Your task to perform on an android device: turn on translation in the chrome app Image 0: 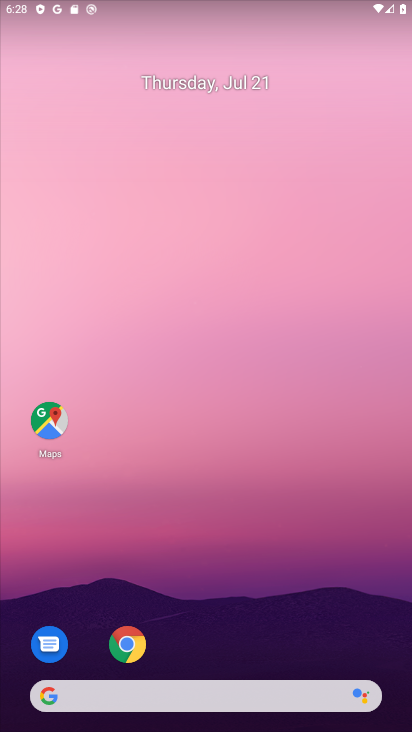
Step 0: click (115, 646)
Your task to perform on an android device: turn on translation in the chrome app Image 1: 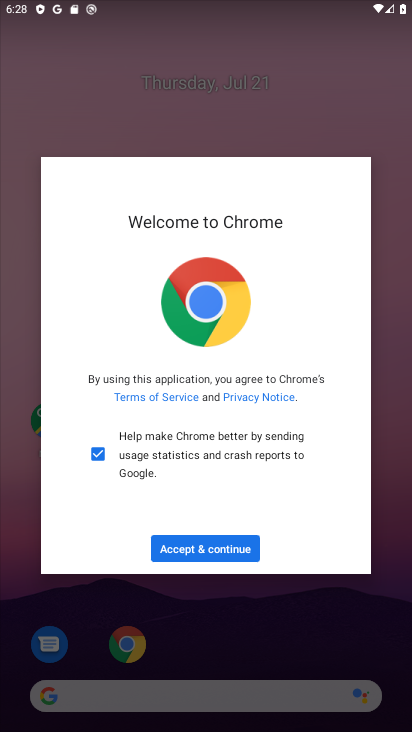
Step 1: click (200, 557)
Your task to perform on an android device: turn on translation in the chrome app Image 2: 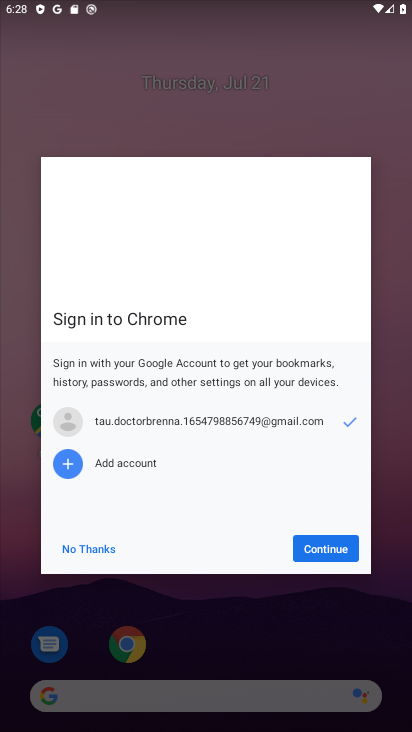
Step 2: click (308, 549)
Your task to perform on an android device: turn on translation in the chrome app Image 3: 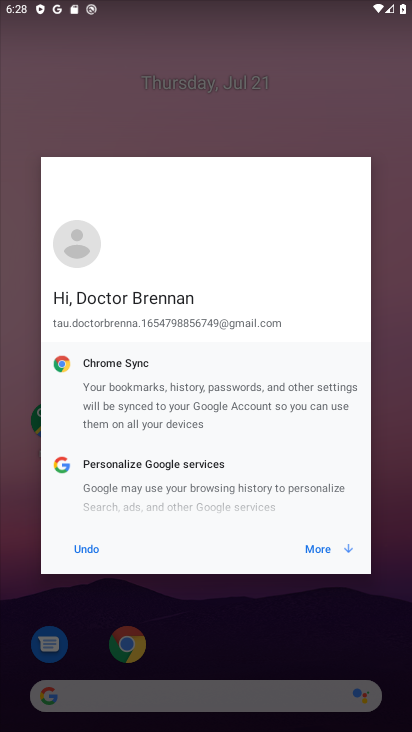
Step 3: click (322, 556)
Your task to perform on an android device: turn on translation in the chrome app Image 4: 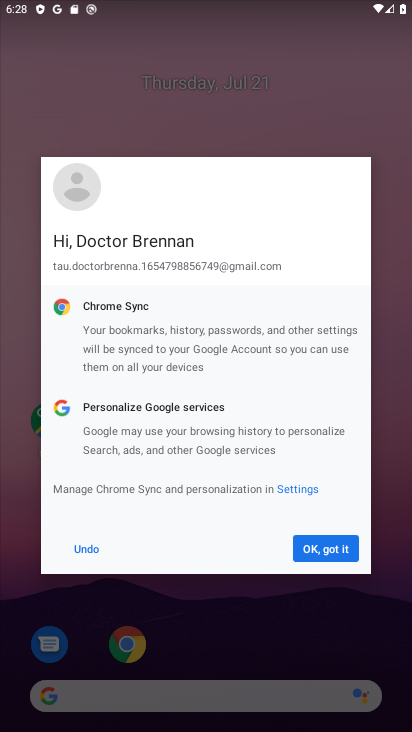
Step 4: click (323, 557)
Your task to perform on an android device: turn on translation in the chrome app Image 5: 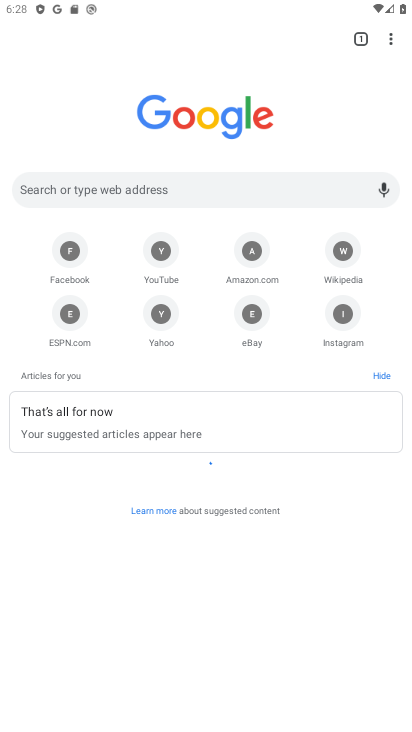
Step 5: task complete